Your task to perform on an android device: turn off notifications settings in the gmail app Image 0: 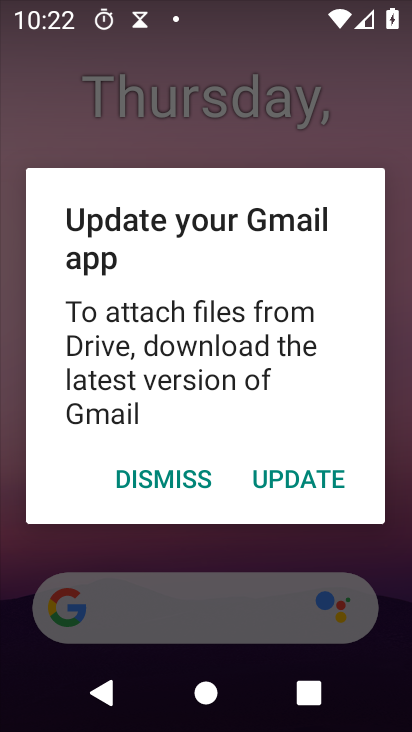
Step 0: press home button
Your task to perform on an android device: turn off notifications settings in the gmail app Image 1: 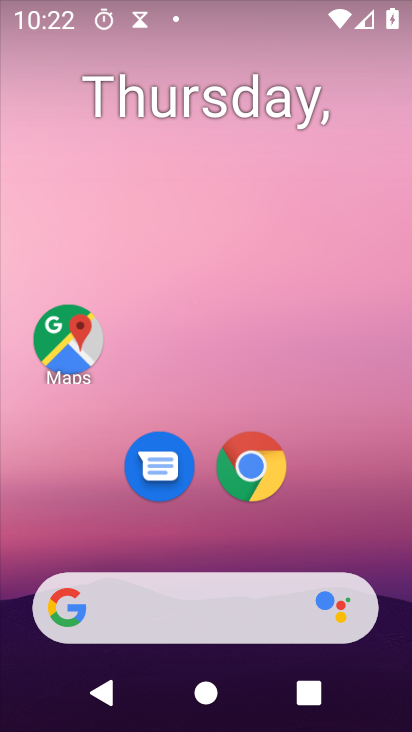
Step 1: drag from (181, 608) to (315, 86)
Your task to perform on an android device: turn off notifications settings in the gmail app Image 2: 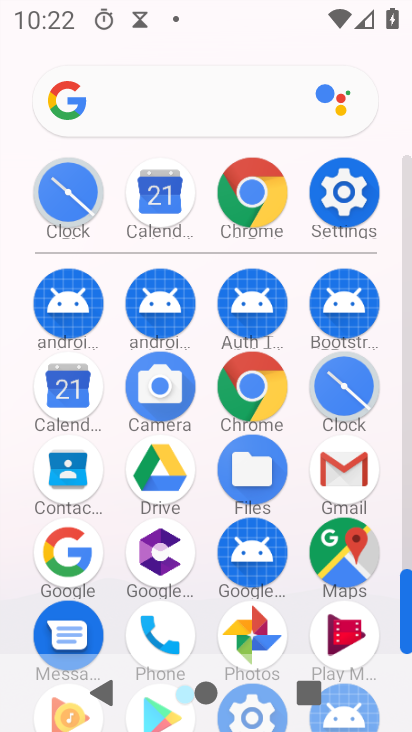
Step 2: click (347, 468)
Your task to perform on an android device: turn off notifications settings in the gmail app Image 3: 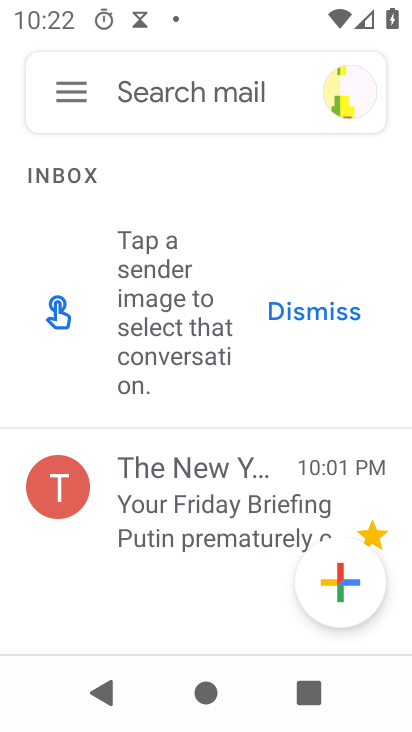
Step 3: click (74, 97)
Your task to perform on an android device: turn off notifications settings in the gmail app Image 4: 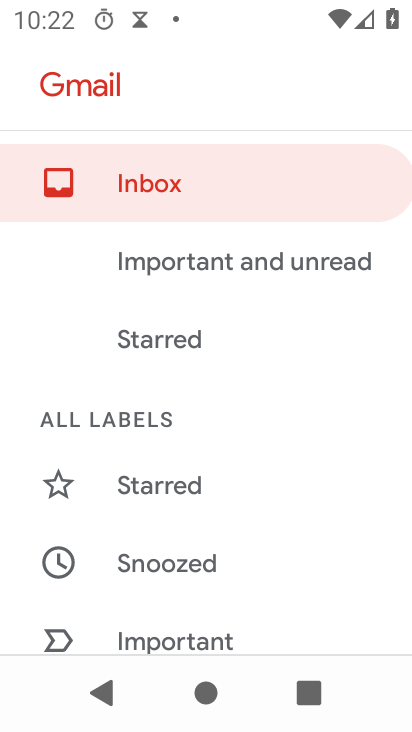
Step 4: drag from (160, 618) to (289, 101)
Your task to perform on an android device: turn off notifications settings in the gmail app Image 5: 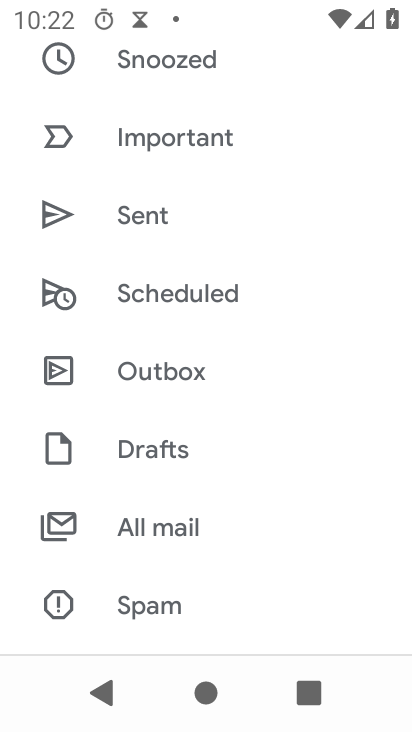
Step 5: drag from (219, 582) to (234, 144)
Your task to perform on an android device: turn off notifications settings in the gmail app Image 6: 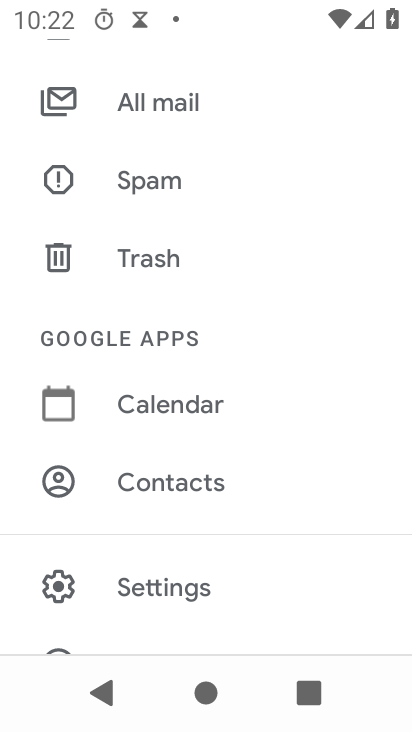
Step 6: click (165, 587)
Your task to perform on an android device: turn off notifications settings in the gmail app Image 7: 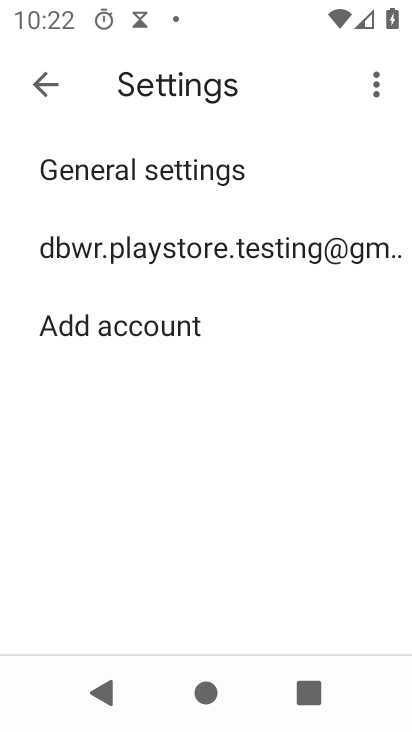
Step 7: click (269, 245)
Your task to perform on an android device: turn off notifications settings in the gmail app Image 8: 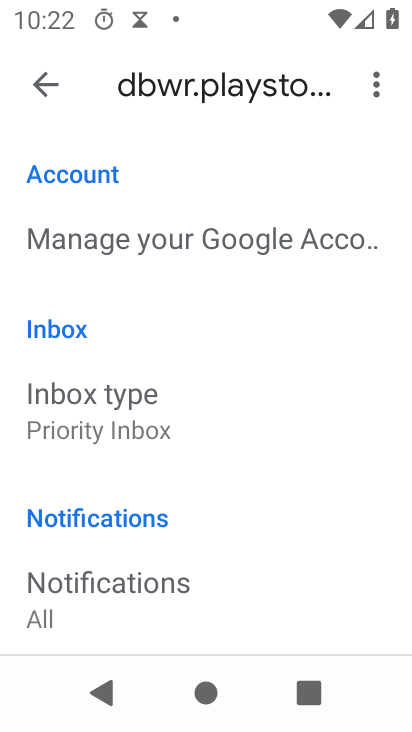
Step 8: drag from (203, 486) to (276, 258)
Your task to perform on an android device: turn off notifications settings in the gmail app Image 9: 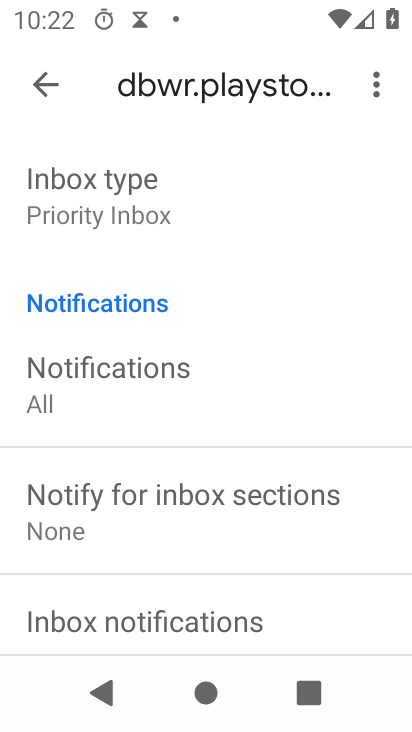
Step 9: click (76, 369)
Your task to perform on an android device: turn off notifications settings in the gmail app Image 10: 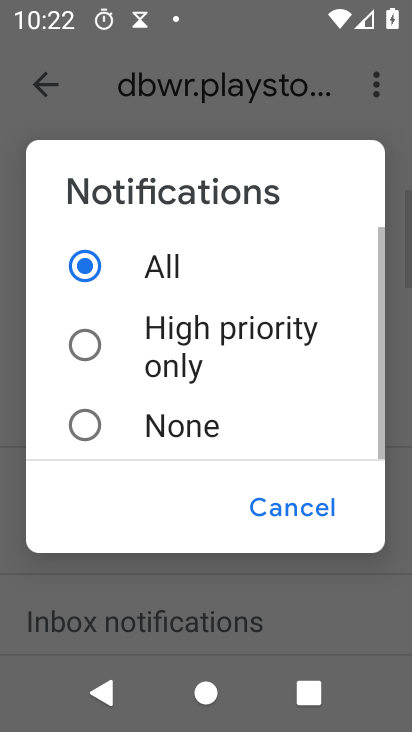
Step 10: click (85, 427)
Your task to perform on an android device: turn off notifications settings in the gmail app Image 11: 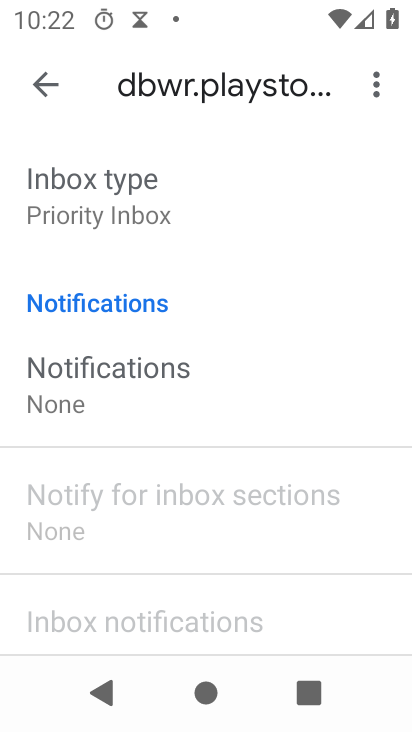
Step 11: task complete